Your task to perform on an android device: turn notification dots on Image 0: 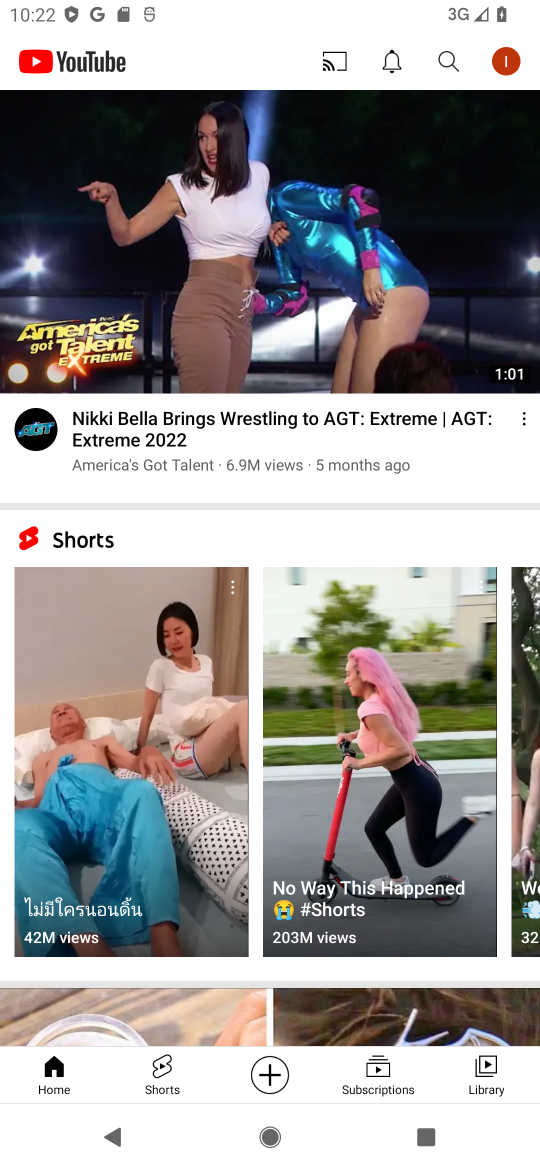
Step 0: press home button
Your task to perform on an android device: turn notification dots on Image 1: 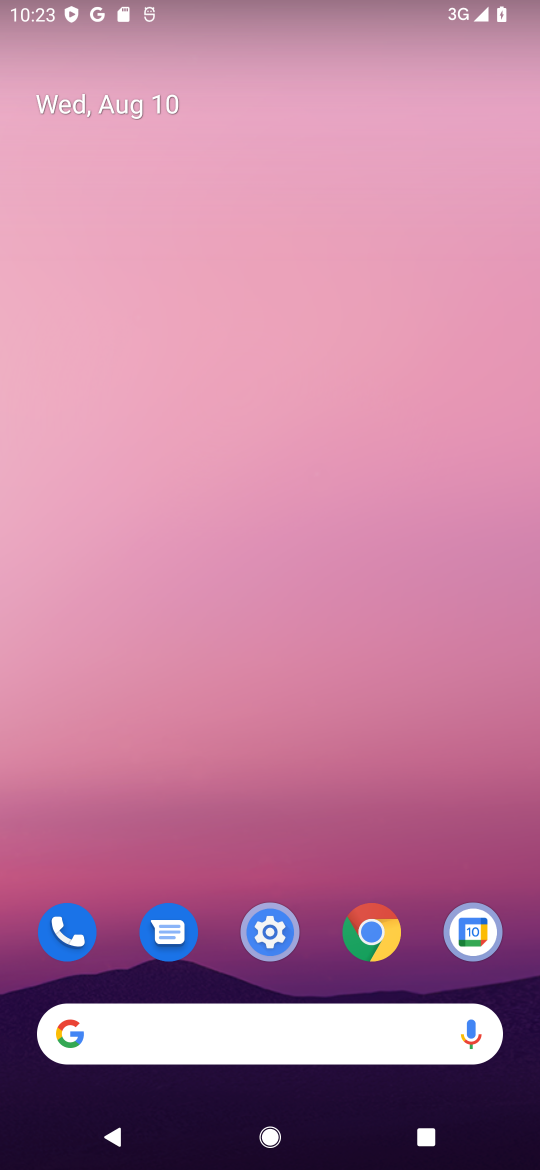
Step 1: click (273, 926)
Your task to perform on an android device: turn notification dots on Image 2: 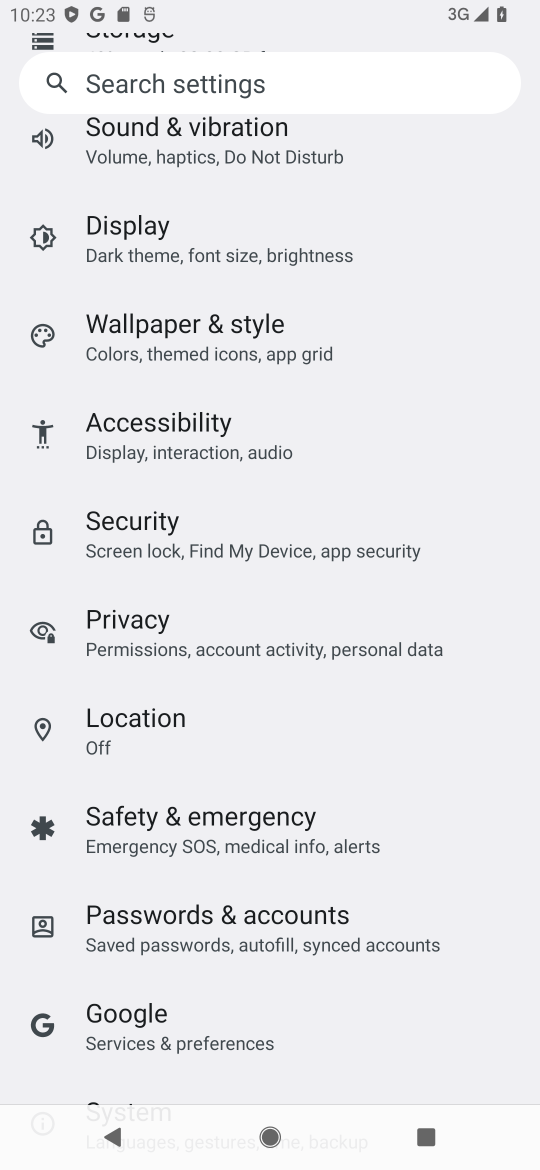
Step 2: drag from (405, 317) to (373, 846)
Your task to perform on an android device: turn notification dots on Image 3: 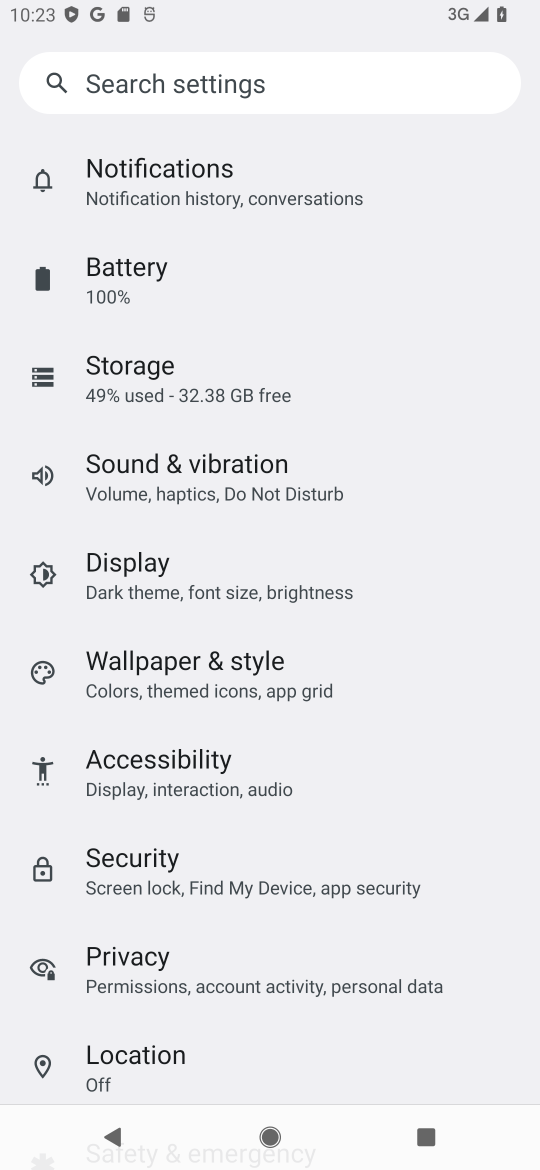
Step 3: click (181, 159)
Your task to perform on an android device: turn notification dots on Image 4: 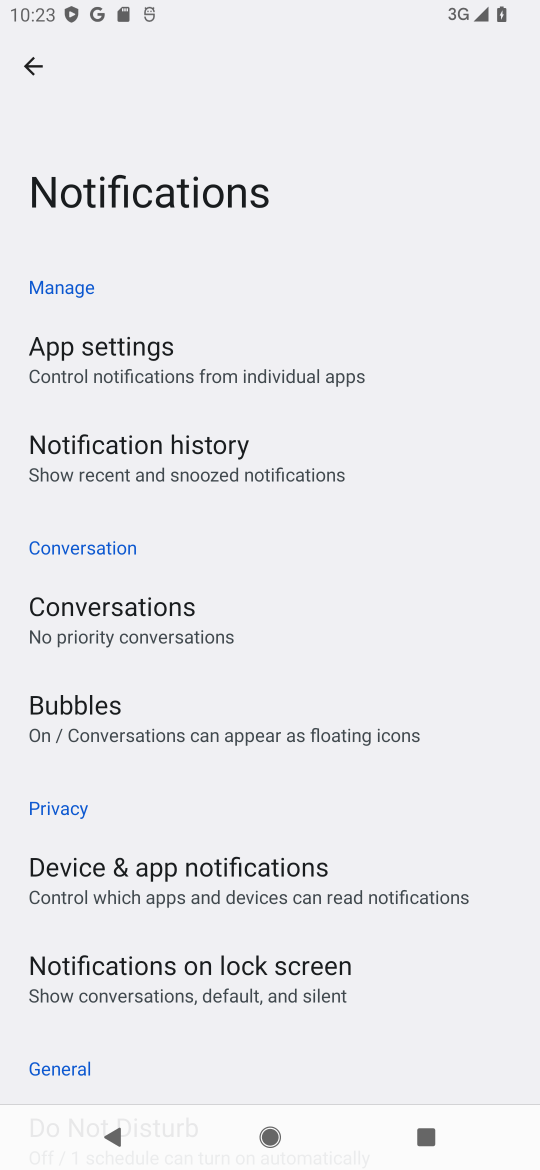
Step 4: task complete